Your task to perform on an android device: turn off notifications in google photos Image 0: 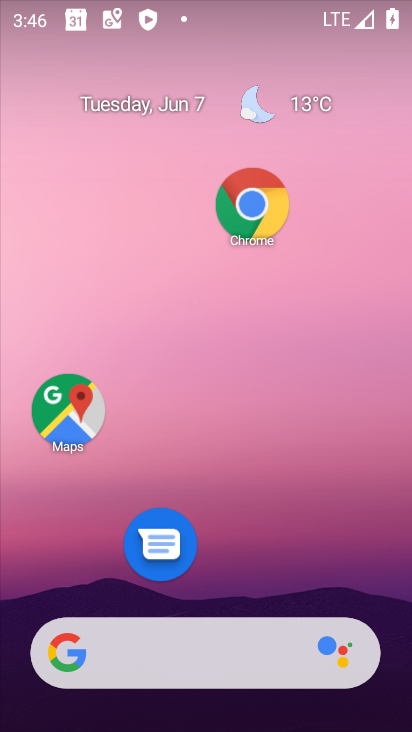
Step 0: drag from (216, 589) to (214, 64)
Your task to perform on an android device: turn off notifications in google photos Image 1: 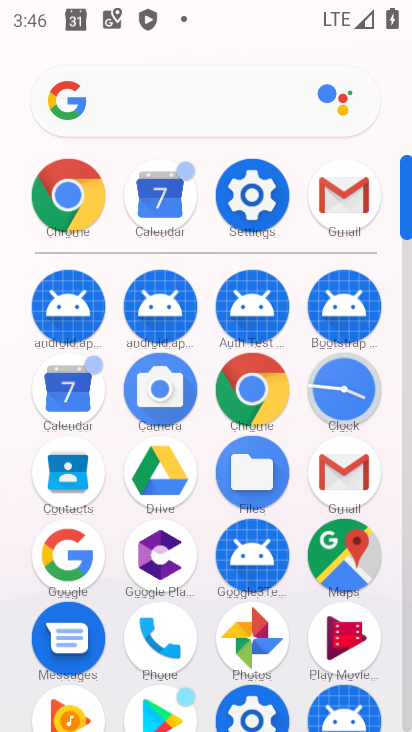
Step 1: click (257, 625)
Your task to perform on an android device: turn off notifications in google photos Image 2: 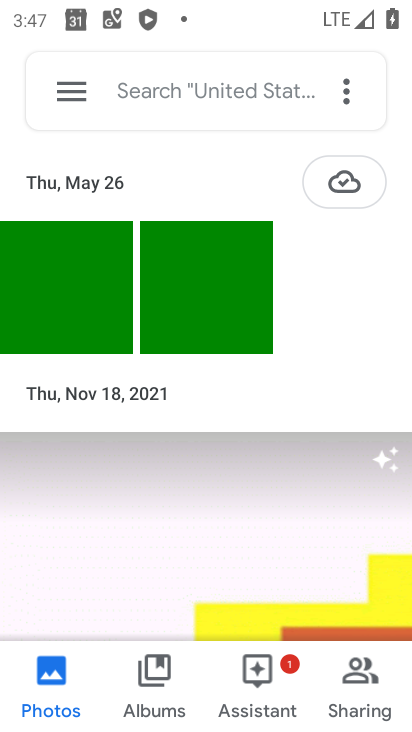
Step 2: click (74, 84)
Your task to perform on an android device: turn off notifications in google photos Image 3: 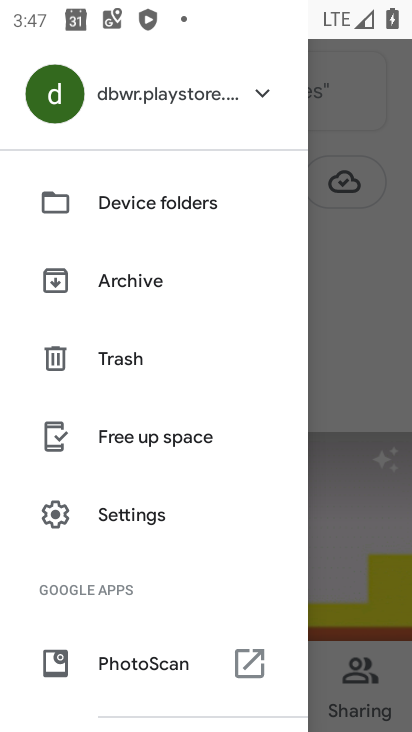
Step 3: click (143, 522)
Your task to perform on an android device: turn off notifications in google photos Image 4: 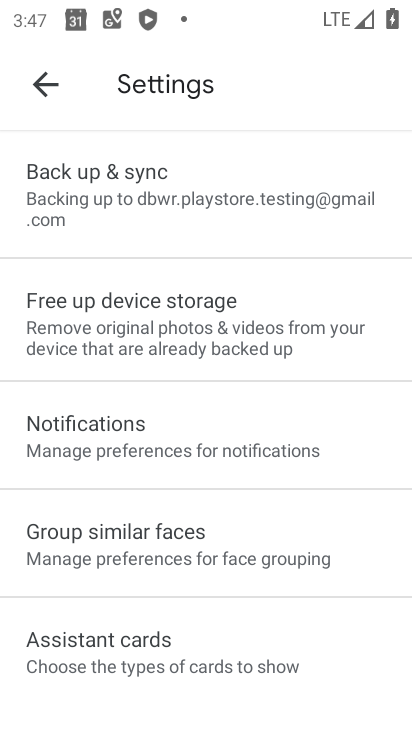
Step 4: click (135, 423)
Your task to perform on an android device: turn off notifications in google photos Image 5: 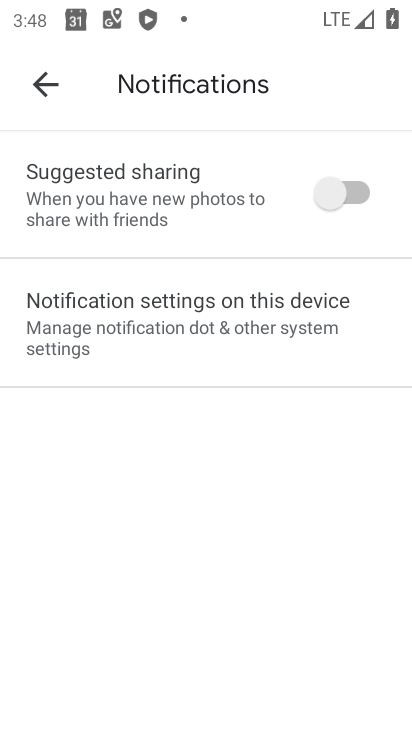
Step 5: click (175, 316)
Your task to perform on an android device: turn off notifications in google photos Image 6: 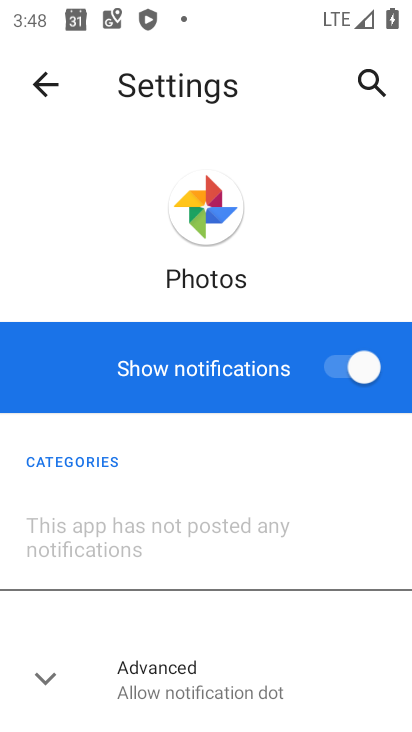
Step 6: click (347, 366)
Your task to perform on an android device: turn off notifications in google photos Image 7: 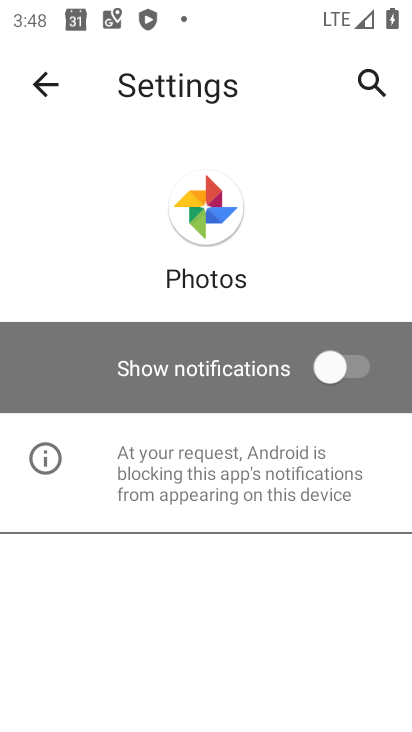
Step 7: task complete